Your task to perform on an android device: turn off wifi Image 0: 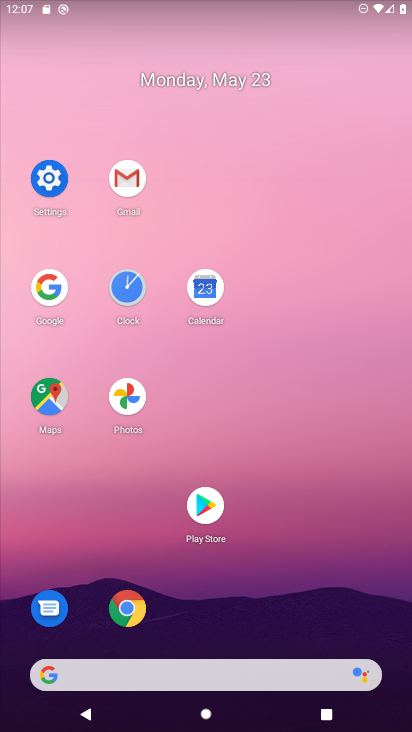
Step 0: click (44, 192)
Your task to perform on an android device: turn off wifi Image 1: 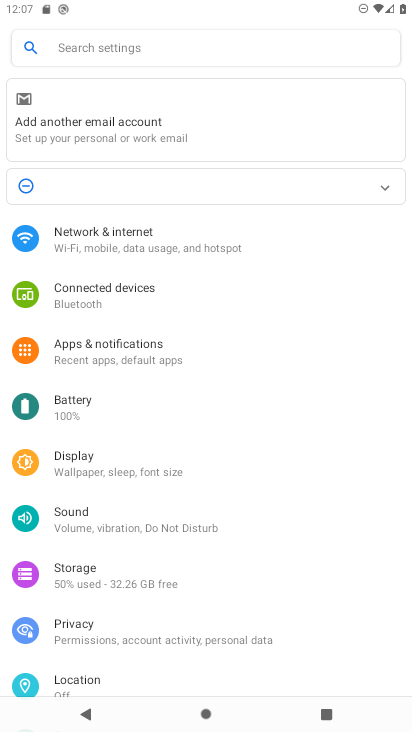
Step 1: click (159, 250)
Your task to perform on an android device: turn off wifi Image 2: 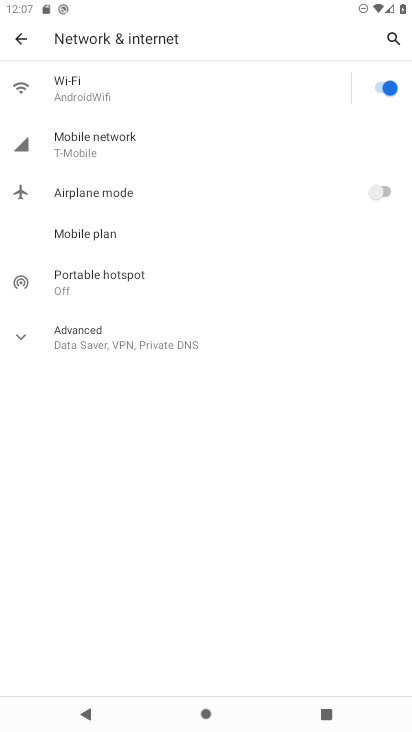
Step 2: click (385, 90)
Your task to perform on an android device: turn off wifi Image 3: 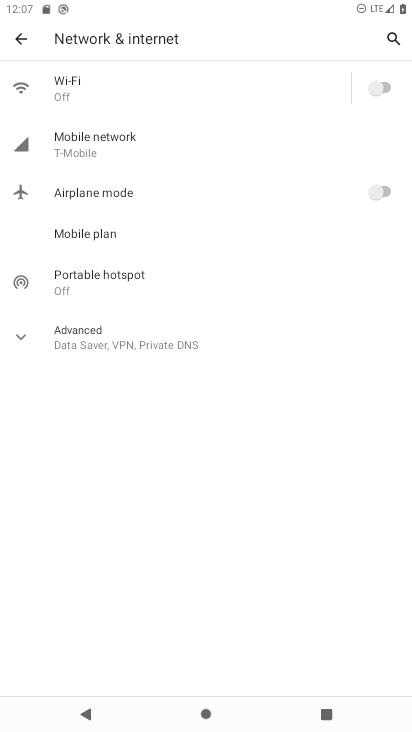
Step 3: task complete